Your task to perform on an android device: toggle priority inbox in the gmail app Image 0: 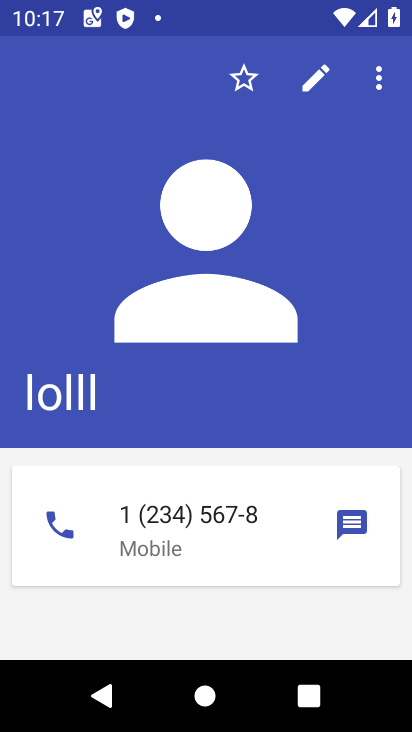
Step 0: press home button
Your task to perform on an android device: toggle priority inbox in the gmail app Image 1: 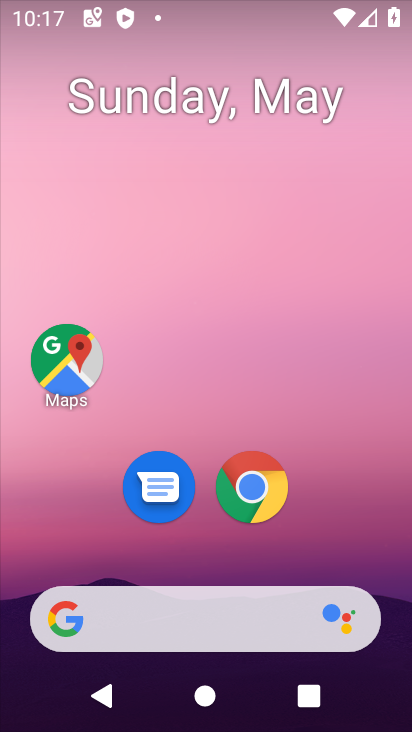
Step 1: drag from (383, 533) to (387, 161)
Your task to perform on an android device: toggle priority inbox in the gmail app Image 2: 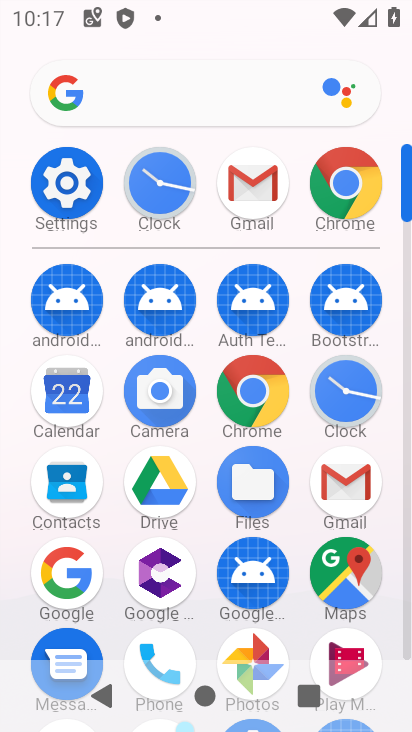
Step 2: click (365, 485)
Your task to perform on an android device: toggle priority inbox in the gmail app Image 3: 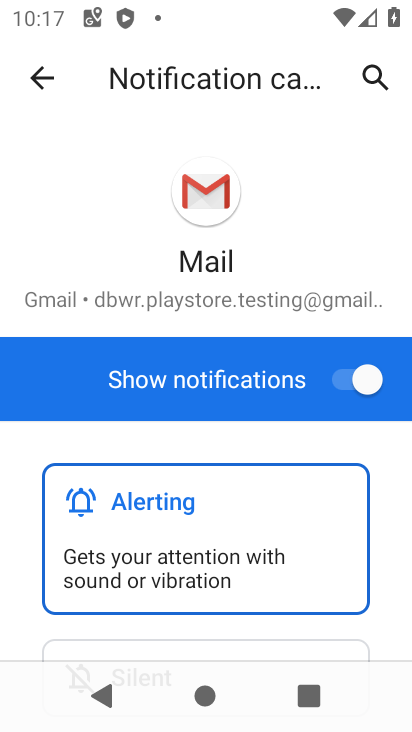
Step 3: click (61, 85)
Your task to perform on an android device: toggle priority inbox in the gmail app Image 4: 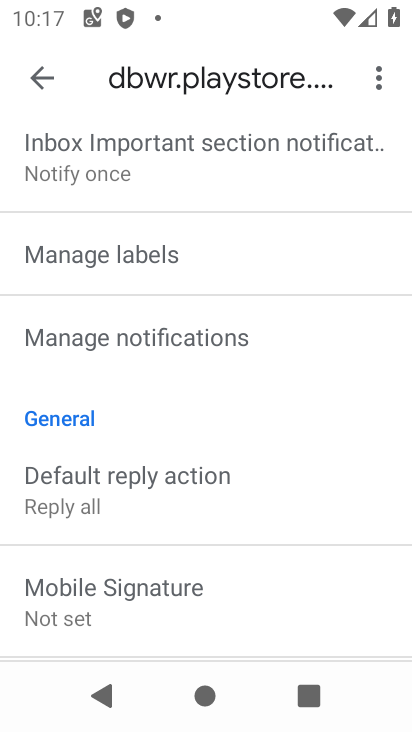
Step 4: task complete